Your task to perform on an android device: set default search engine in the chrome app Image 0: 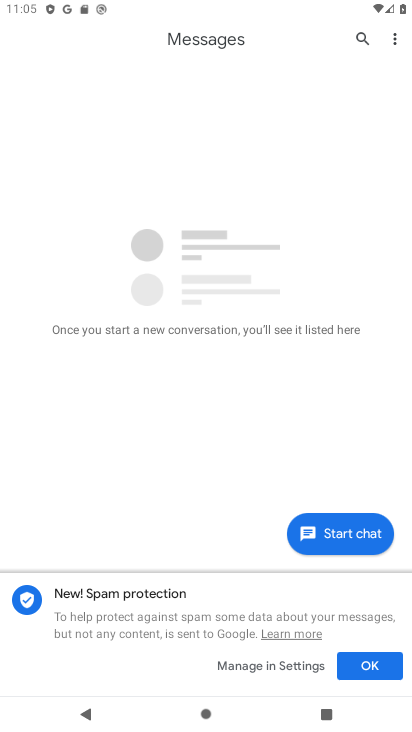
Step 0: press home button
Your task to perform on an android device: set default search engine in the chrome app Image 1: 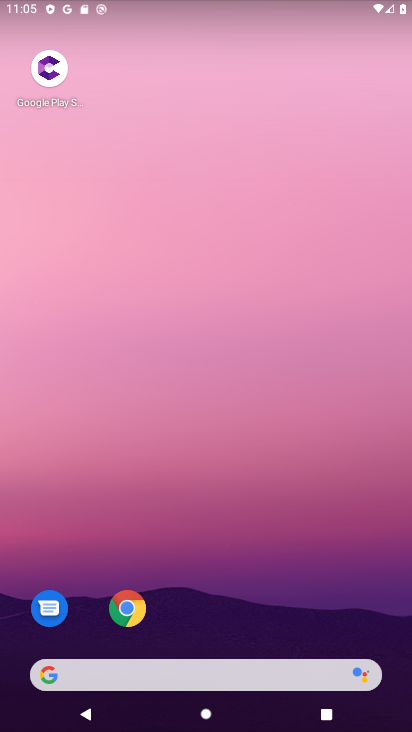
Step 1: click (131, 610)
Your task to perform on an android device: set default search engine in the chrome app Image 2: 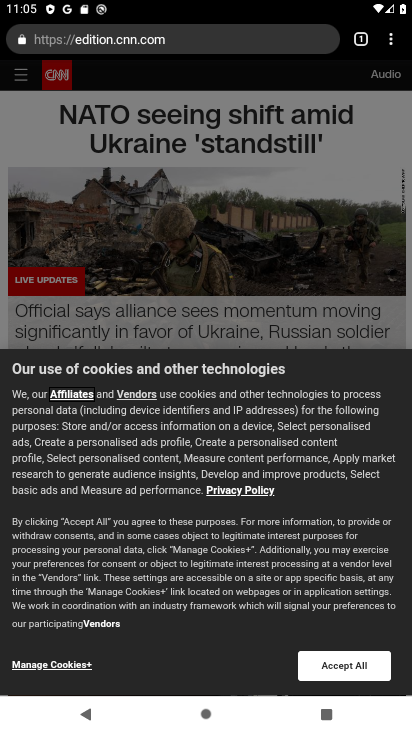
Step 2: click (391, 39)
Your task to perform on an android device: set default search engine in the chrome app Image 3: 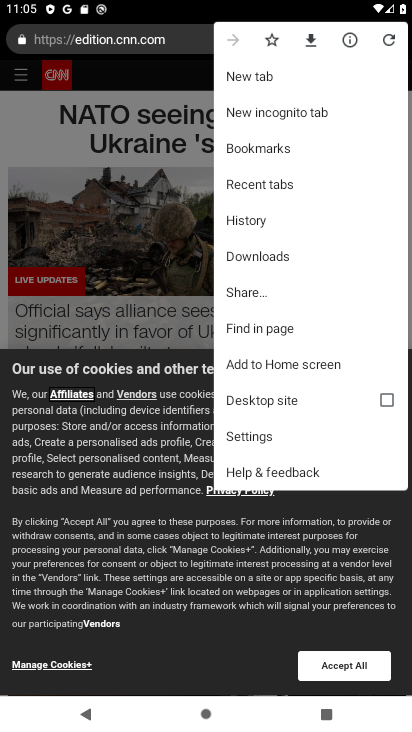
Step 3: click (239, 440)
Your task to perform on an android device: set default search engine in the chrome app Image 4: 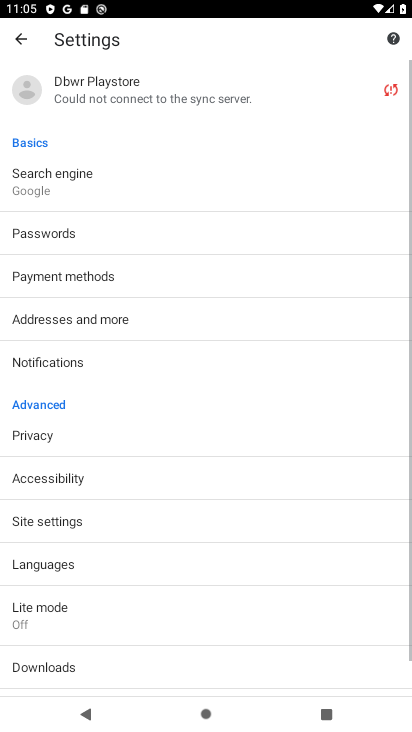
Step 4: click (52, 174)
Your task to perform on an android device: set default search engine in the chrome app Image 5: 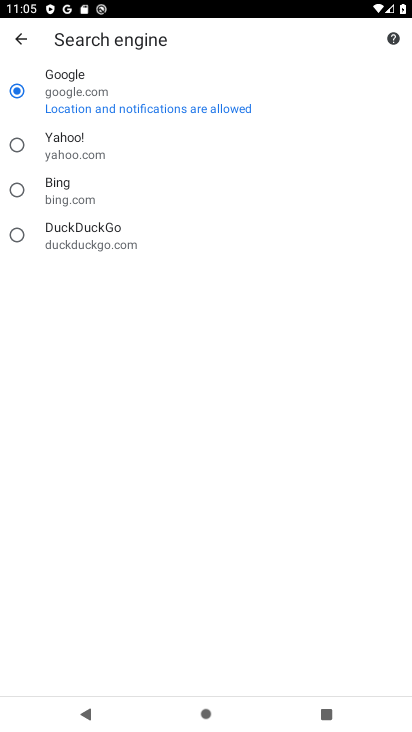
Step 5: click (39, 188)
Your task to perform on an android device: set default search engine in the chrome app Image 6: 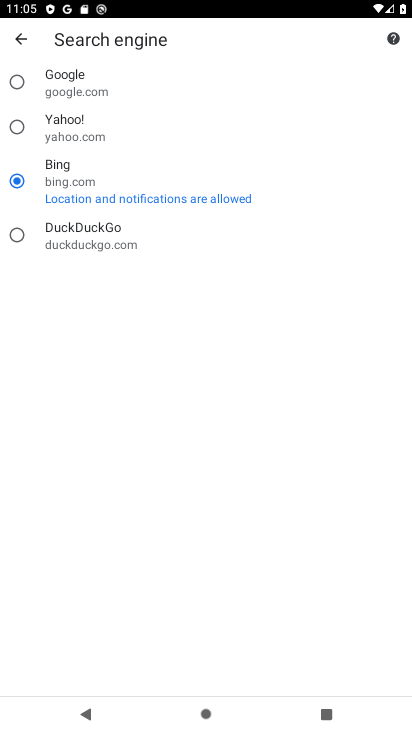
Step 6: task complete